Your task to perform on an android device: Open Google Maps and go to "Timeline" Image 0: 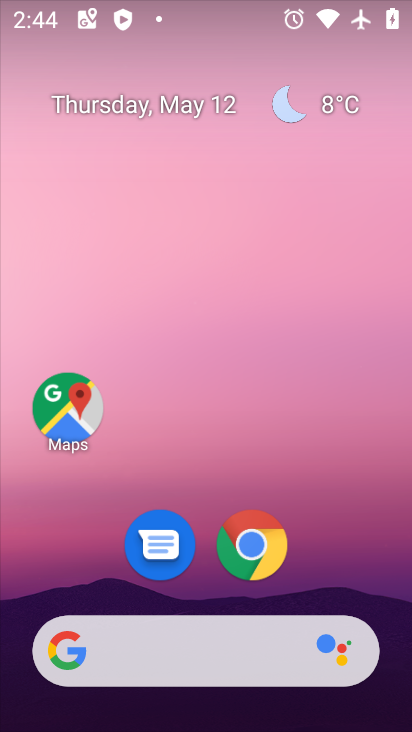
Step 0: click (63, 406)
Your task to perform on an android device: Open Google Maps and go to "Timeline" Image 1: 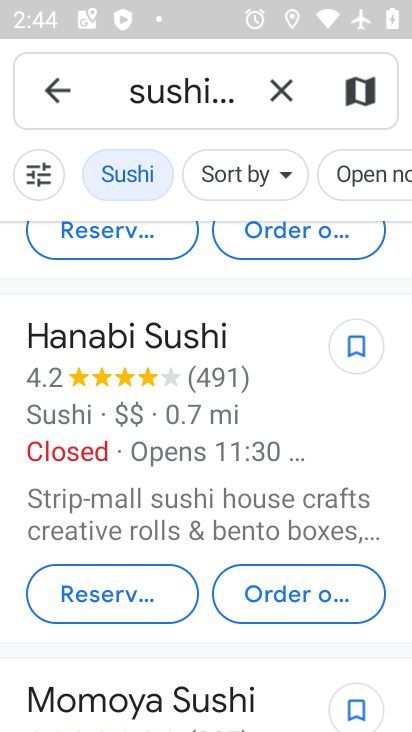
Step 1: click (279, 85)
Your task to perform on an android device: Open Google Maps and go to "Timeline" Image 2: 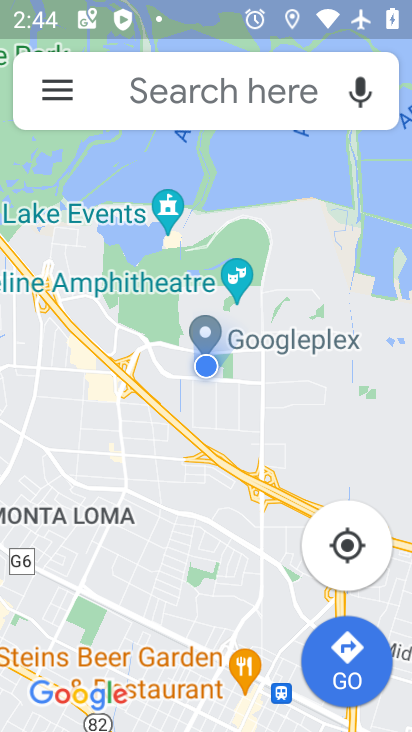
Step 2: click (63, 92)
Your task to perform on an android device: Open Google Maps and go to "Timeline" Image 3: 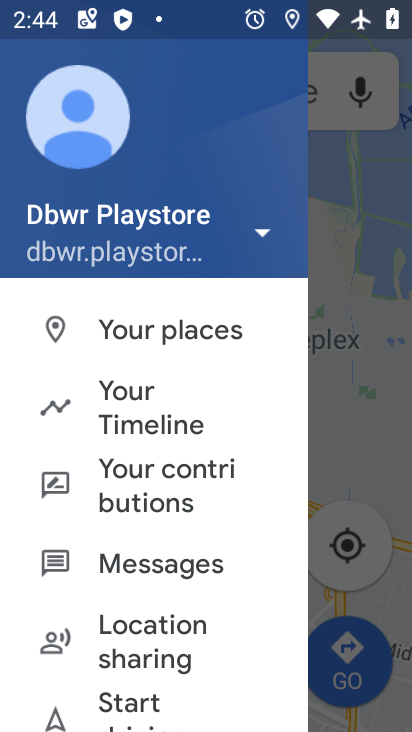
Step 3: click (150, 418)
Your task to perform on an android device: Open Google Maps and go to "Timeline" Image 4: 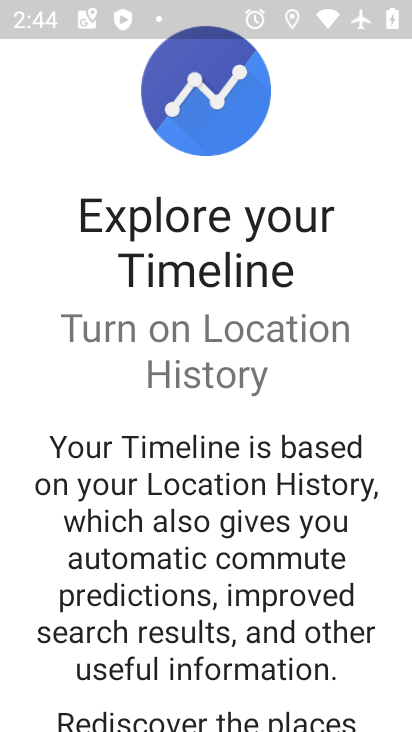
Step 4: drag from (233, 559) to (222, 210)
Your task to perform on an android device: Open Google Maps and go to "Timeline" Image 5: 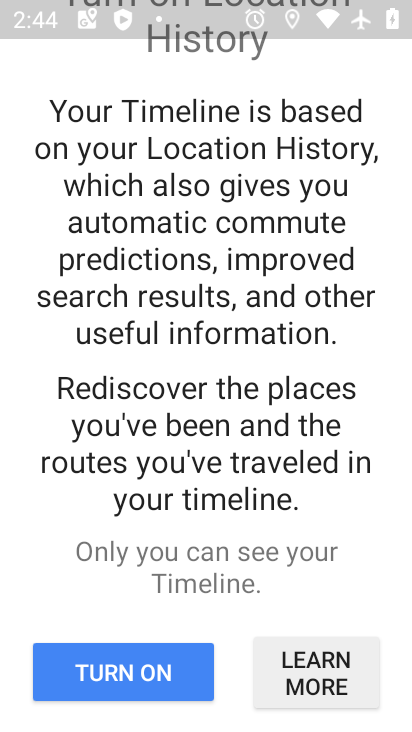
Step 5: drag from (236, 606) to (225, 232)
Your task to perform on an android device: Open Google Maps and go to "Timeline" Image 6: 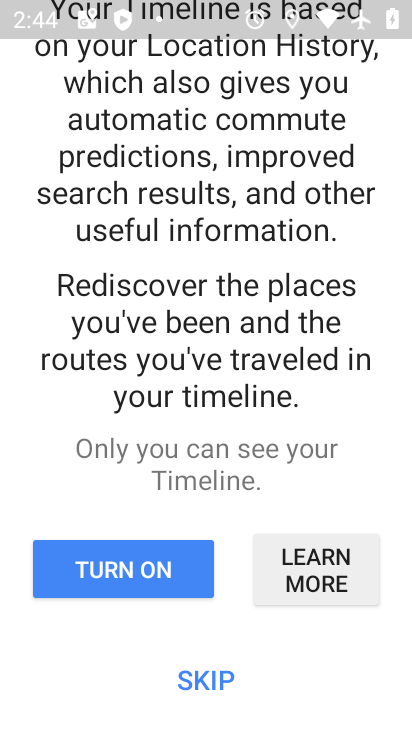
Step 6: click (205, 674)
Your task to perform on an android device: Open Google Maps and go to "Timeline" Image 7: 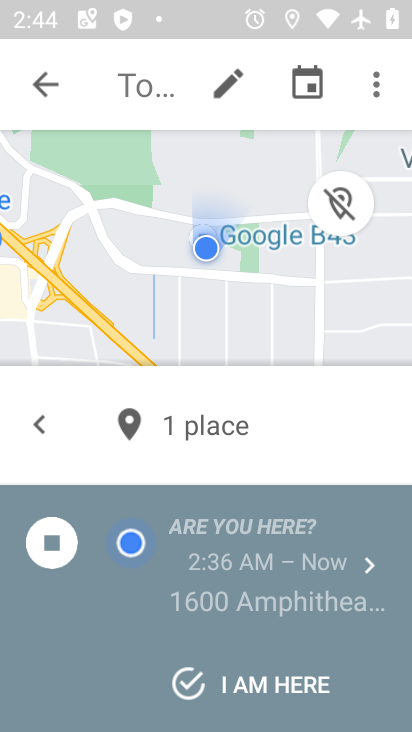
Step 7: task complete